Your task to perform on an android device: turn vacation reply on in the gmail app Image 0: 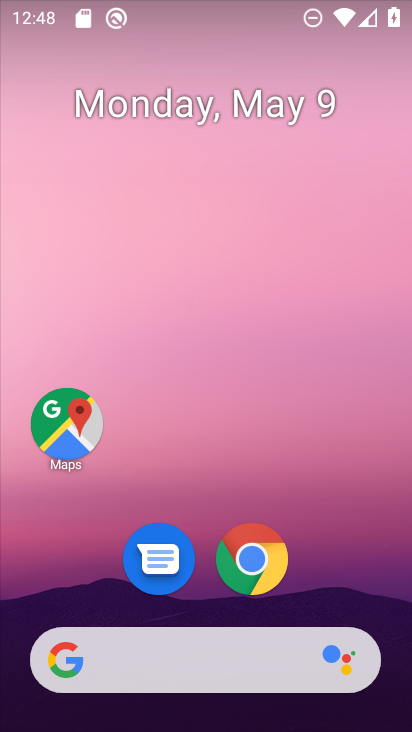
Step 0: drag from (378, 571) to (308, 2)
Your task to perform on an android device: turn vacation reply on in the gmail app Image 1: 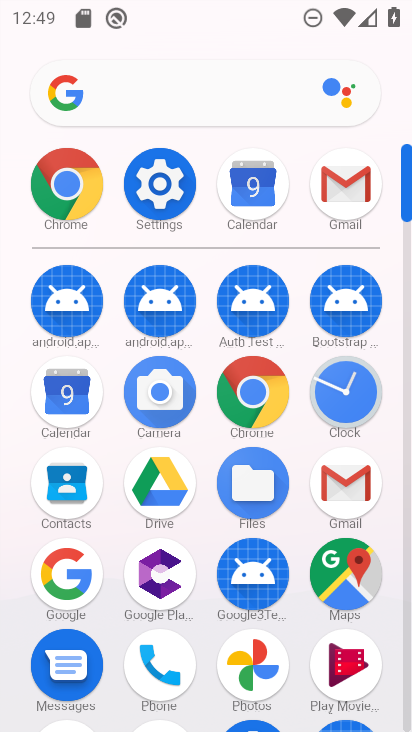
Step 1: click (351, 492)
Your task to perform on an android device: turn vacation reply on in the gmail app Image 2: 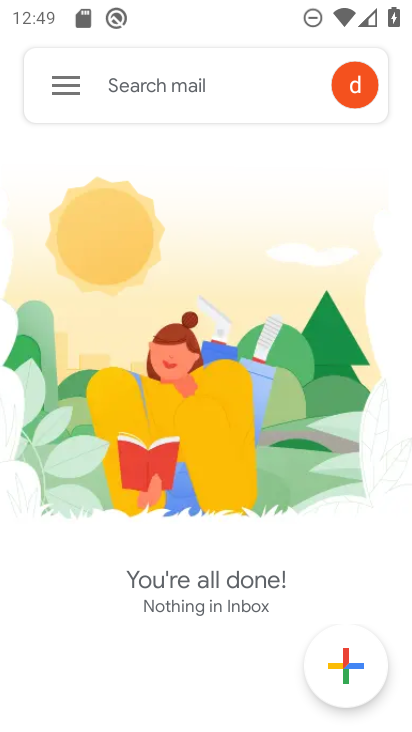
Step 2: click (62, 78)
Your task to perform on an android device: turn vacation reply on in the gmail app Image 3: 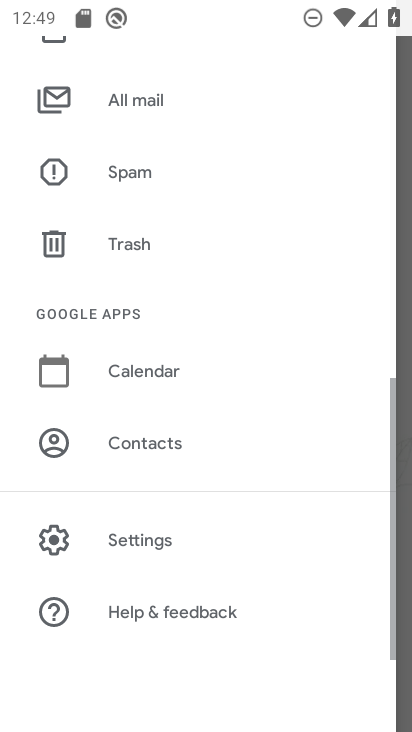
Step 3: click (80, 534)
Your task to perform on an android device: turn vacation reply on in the gmail app Image 4: 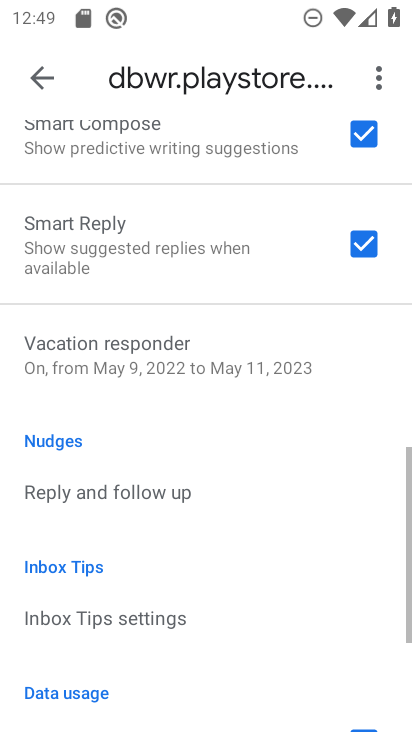
Step 4: click (184, 355)
Your task to perform on an android device: turn vacation reply on in the gmail app Image 5: 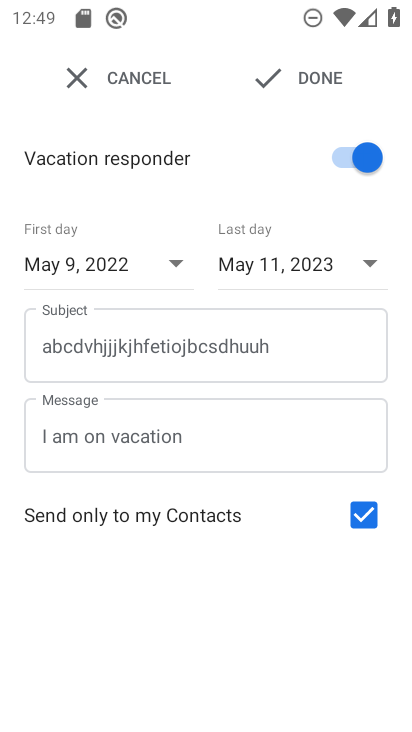
Step 5: click (313, 74)
Your task to perform on an android device: turn vacation reply on in the gmail app Image 6: 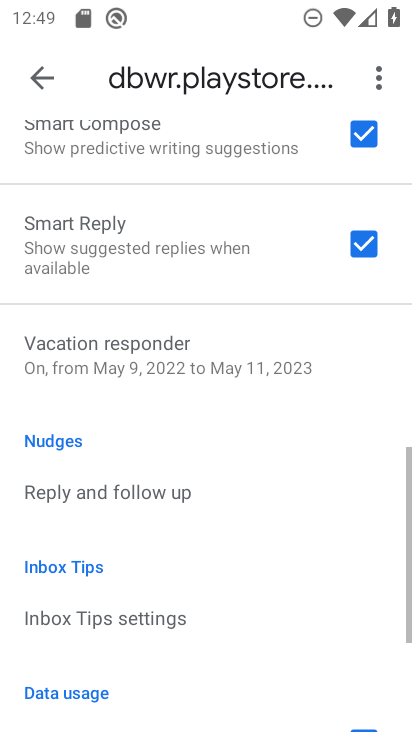
Step 6: task complete